Your task to perform on an android device: What is the recent news? Image 0: 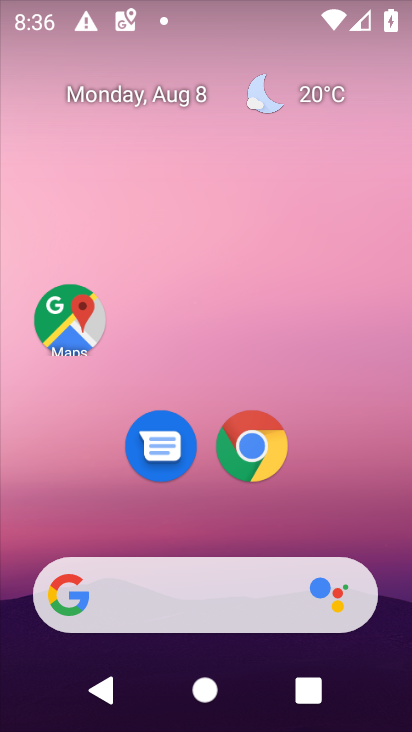
Step 0: drag from (3, 250) to (405, 256)
Your task to perform on an android device: What is the recent news? Image 1: 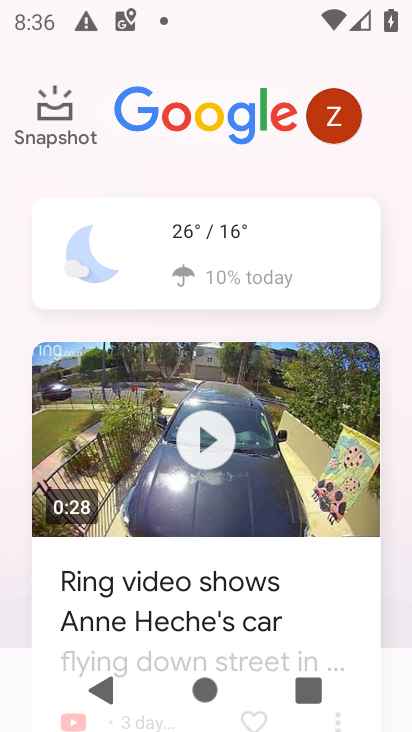
Step 1: task complete